Your task to perform on an android device: What is the recent news? Image 0: 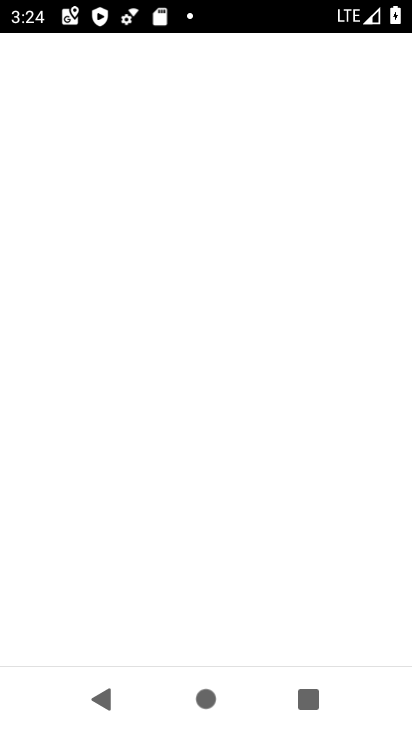
Step 0: drag from (116, 582) to (211, 127)
Your task to perform on an android device: What is the recent news? Image 1: 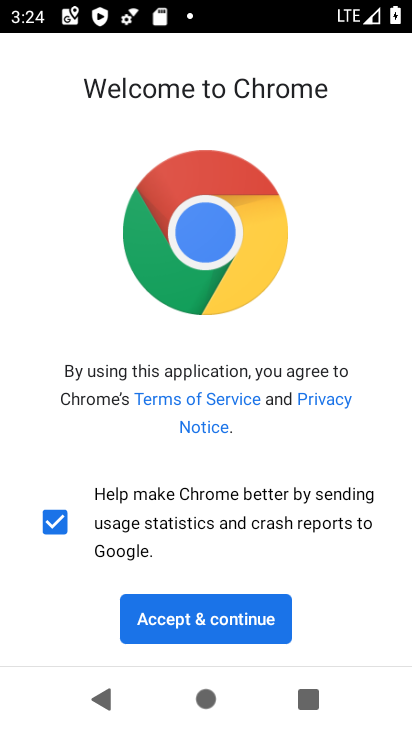
Step 1: task complete